Your task to perform on an android device: Open calendar and show me the second week of next month Image 0: 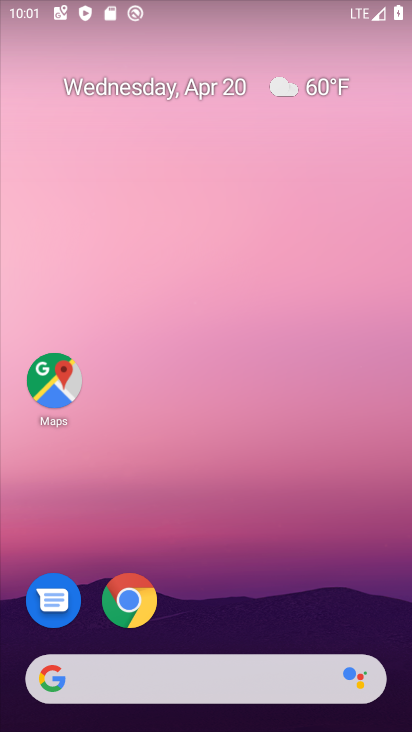
Step 0: click (186, 97)
Your task to perform on an android device: Open calendar and show me the second week of next month Image 1: 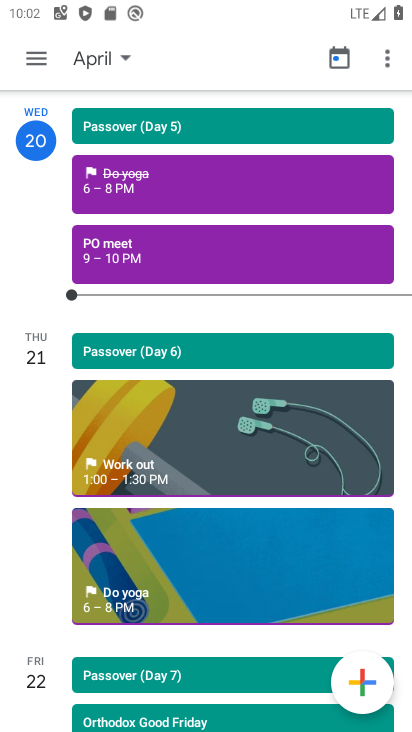
Step 1: click (118, 60)
Your task to perform on an android device: Open calendar and show me the second week of next month Image 2: 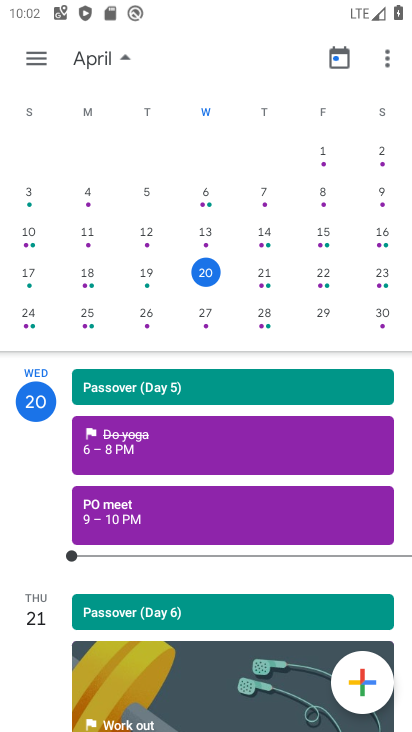
Step 2: drag from (392, 295) to (67, 291)
Your task to perform on an android device: Open calendar and show me the second week of next month Image 3: 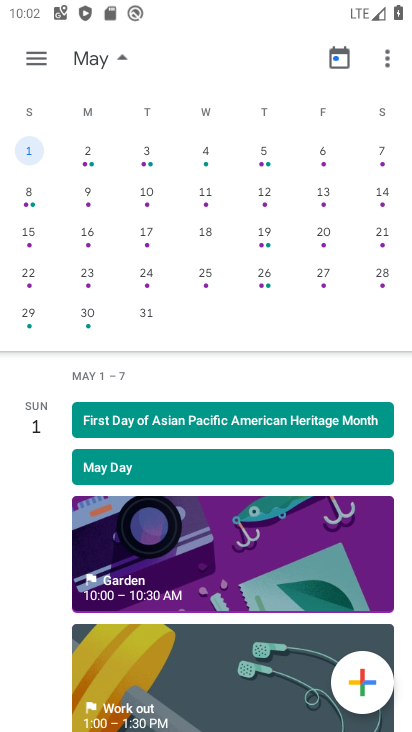
Step 3: click (213, 196)
Your task to perform on an android device: Open calendar and show me the second week of next month Image 4: 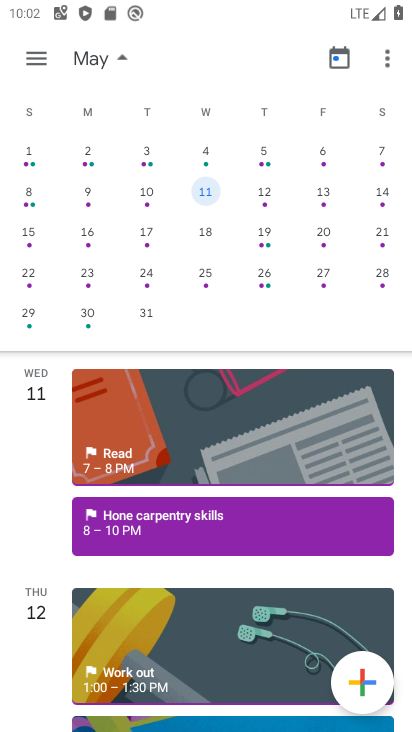
Step 4: task complete